Your task to perform on an android device: turn pop-ups on in chrome Image 0: 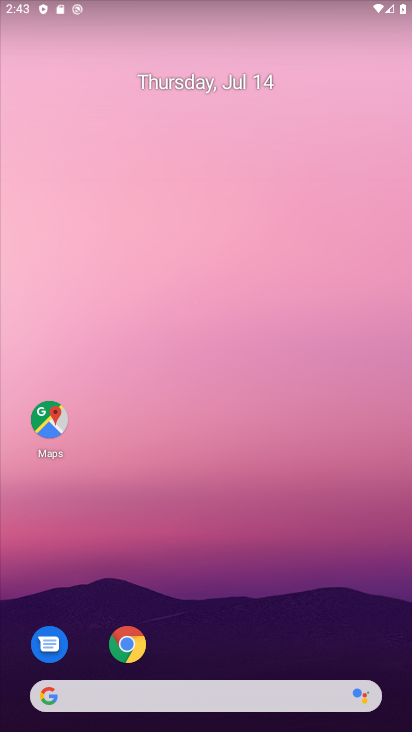
Step 0: drag from (251, 457) to (251, 407)
Your task to perform on an android device: turn pop-ups on in chrome Image 1: 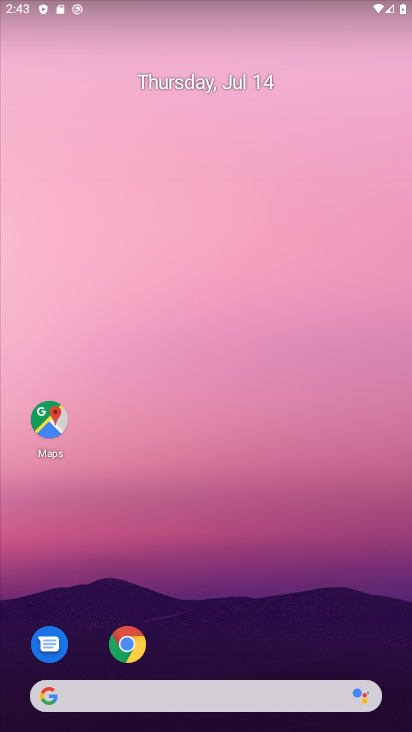
Step 1: drag from (229, 635) to (191, 158)
Your task to perform on an android device: turn pop-ups on in chrome Image 2: 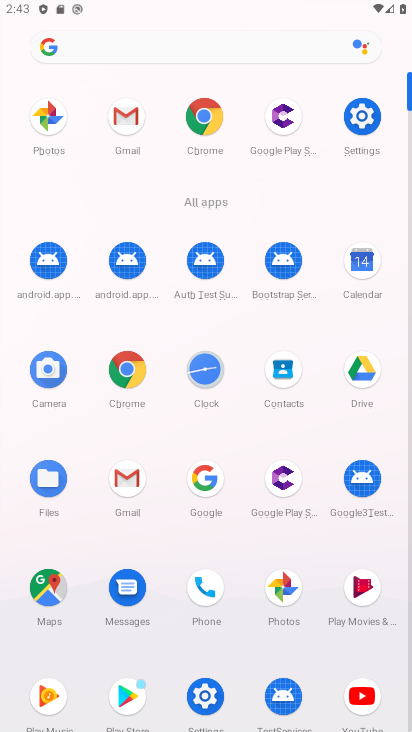
Step 2: drag from (165, 635) to (181, 385)
Your task to perform on an android device: turn pop-ups on in chrome Image 3: 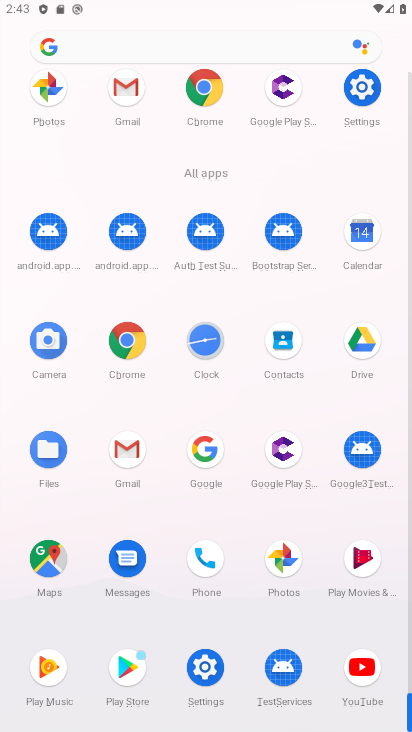
Step 3: click (125, 336)
Your task to perform on an android device: turn pop-ups on in chrome Image 4: 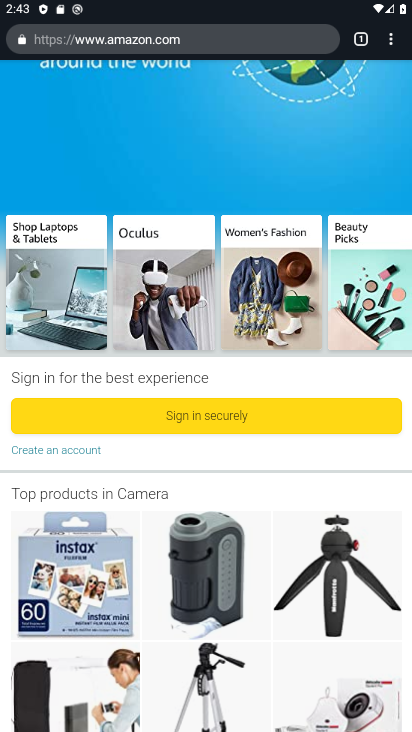
Step 4: drag from (252, 525) to (221, 274)
Your task to perform on an android device: turn pop-ups on in chrome Image 5: 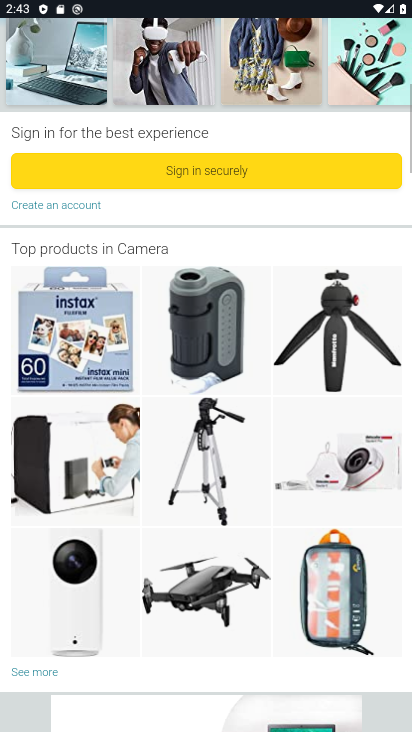
Step 5: drag from (203, 191) to (309, 585)
Your task to perform on an android device: turn pop-ups on in chrome Image 6: 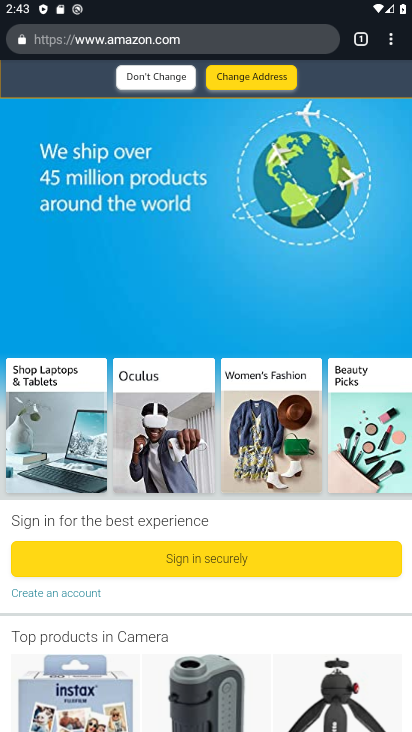
Step 6: drag from (235, 333) to (345, 693)
Your task to perform on an android device: turn pop-ups on in chrome Image 7: 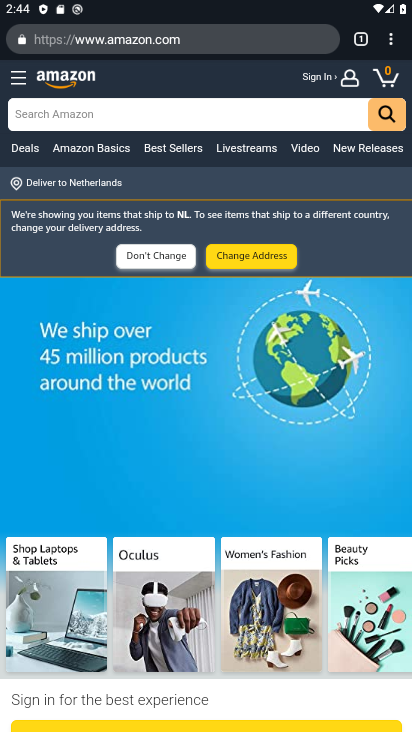
Step 7: click (390, 48)
Your task to perform on an android device: turn pop-ups on in chrome Image 8: 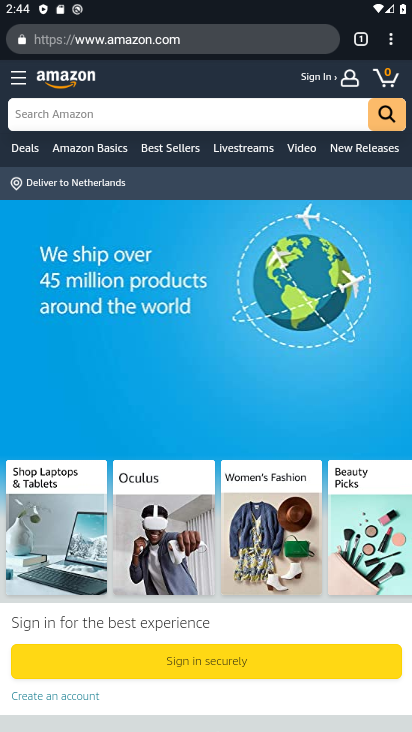
Step 8: click (385, 39)
Your task to perform on an android device: turn pop-ups on in chrome Image 9: 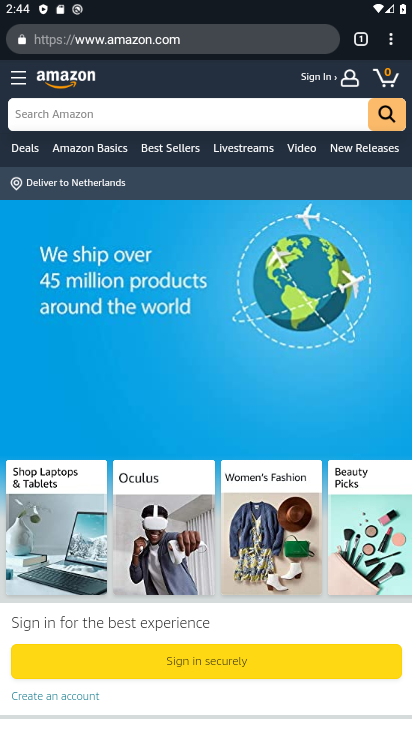
Step 9: click (393, 45)
Your task to perform on an android device: turn pop-ups on in chrome Image 10: 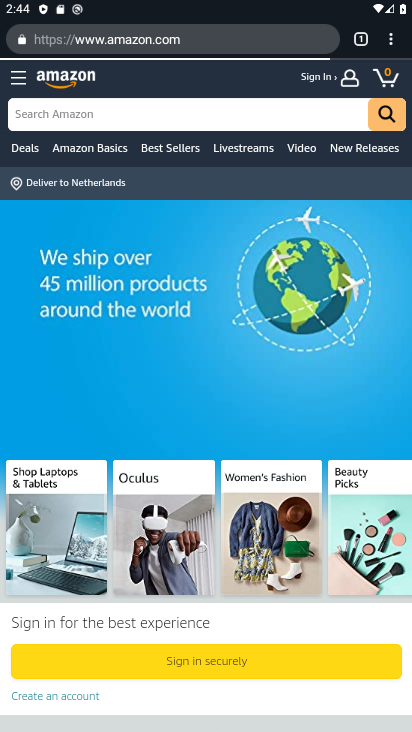
Step 10: drag from (398, 35) to (272, 477)
Your task to perform on an android device: turn pop-ups on in chrome Image 11: 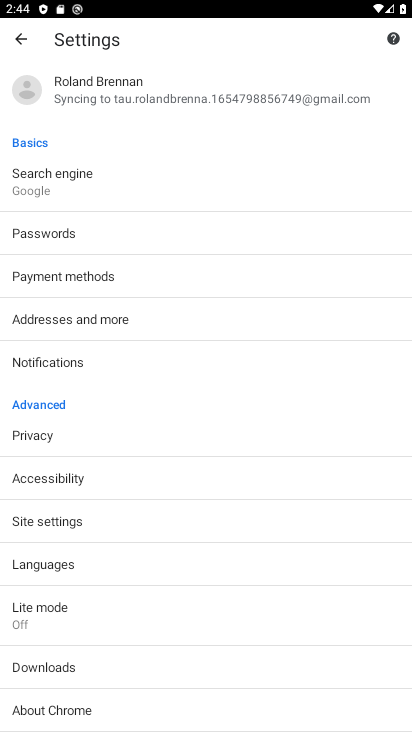
Step 11: drag from (213, 619) to (234, 269)
Your task to perform on an android device: turn pop-ups on in chrome Image 12: 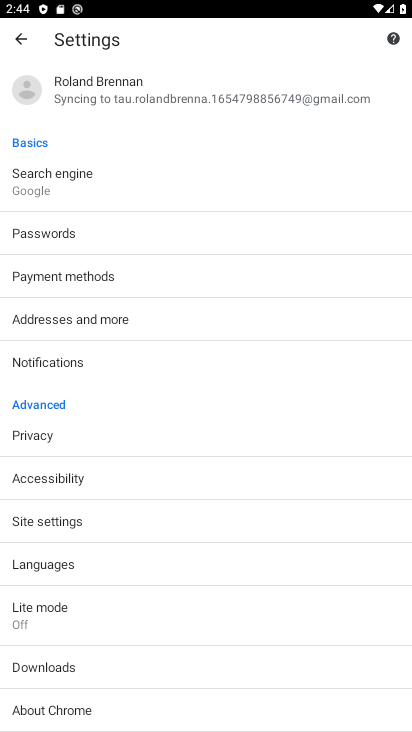
Step 12: click (61, 518)
Your task to perform on an android device: turn pop-ups on in chrome Image 13: 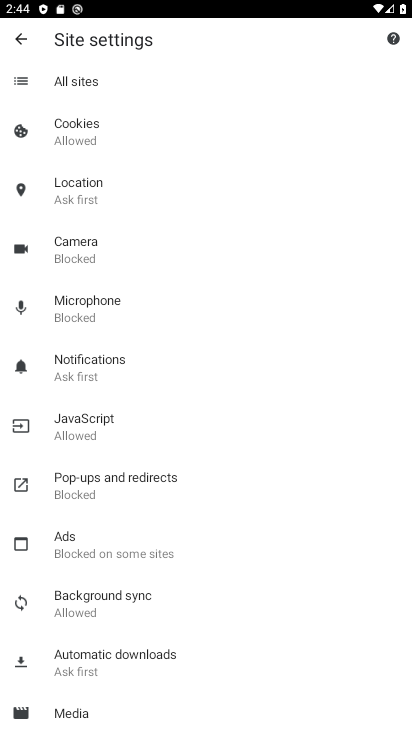
Step 13: drag from (168, 604) to (207, 300)
Your task to perform on an android device: turn pop-ups on in chrome Image 14: 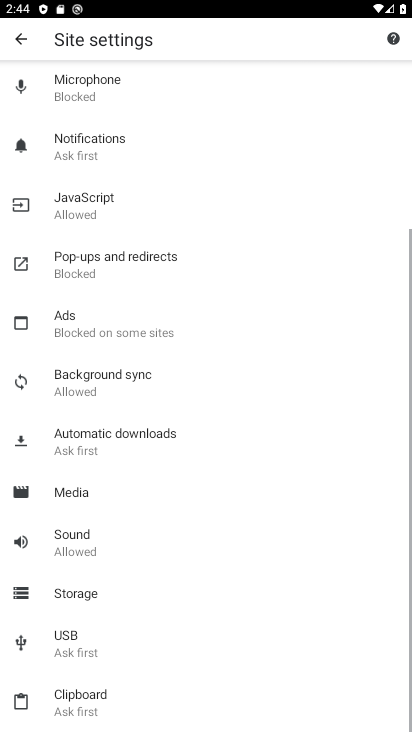
Step 14: drag from (213, 271) to (205, 637)
Your task to perform on an android device: turn pop-ups on in chrome Image 15: 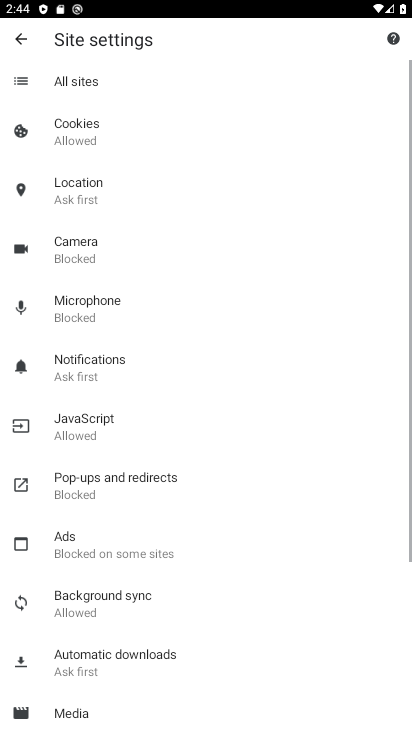
Step 15: click (132, 485)
Your task to perform on an android device: turn pop-ups on in chrome Image 16: 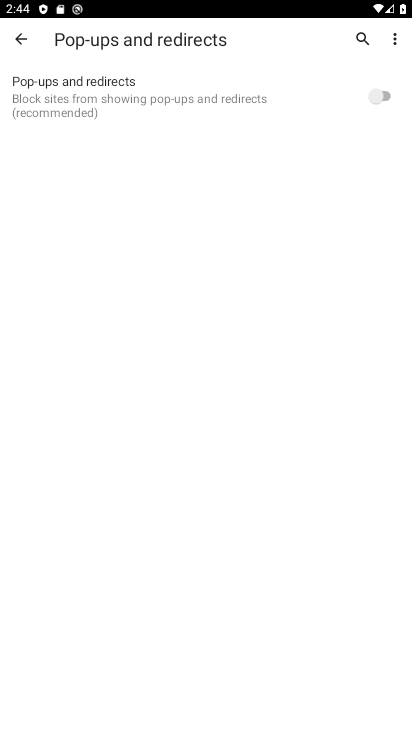
Step 16: drag from (215, 501) to (225, 275)
Your task to perform on an android device: turn pop-ups on in chrome Image 17: 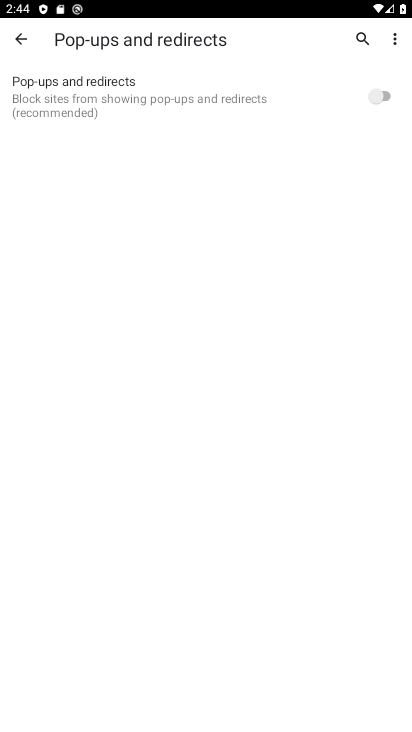
Step 17: click (287, 99)
Your task to perform on an android device: turn pop-ups on in chrome Image 18: 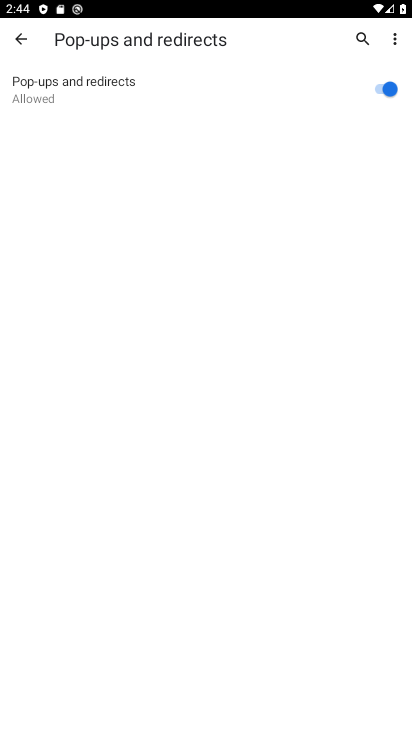
Step 18: task complete